Your task to perform on an android device: Open eBay Image 0: 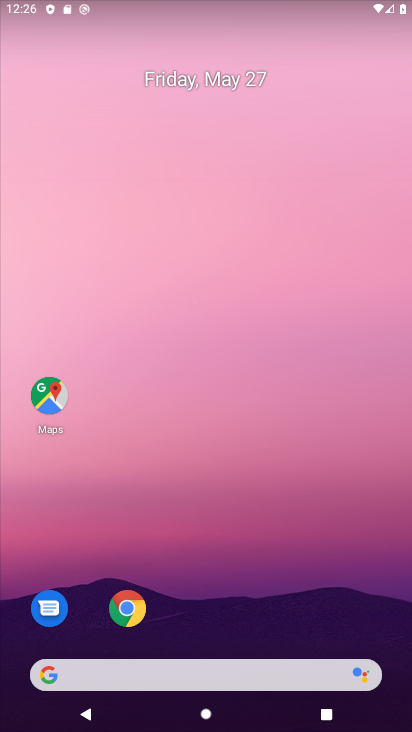
Step 0: click (120, 618)
Your task to perform on an android device: Open eBay Image 1: 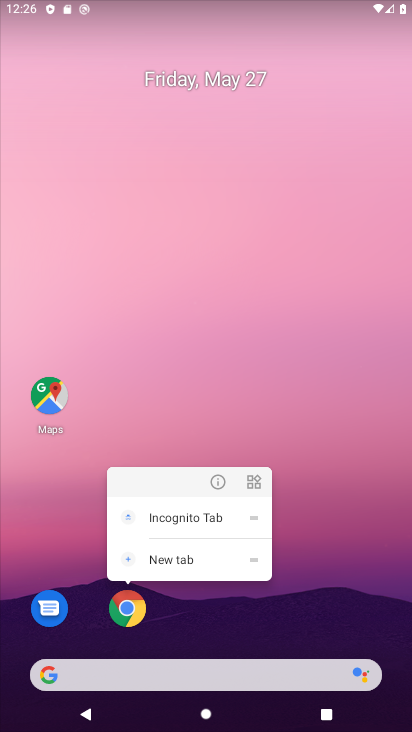
Step 1: click (125, 609)
Your task to perform on an android device: Open eBay Image 2: 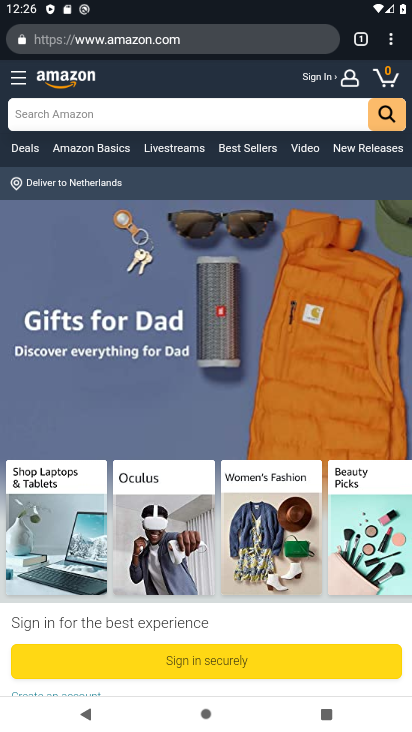
Step 2: click (365, 35)
Your task to perform on an android device: Open eBay Image 3: 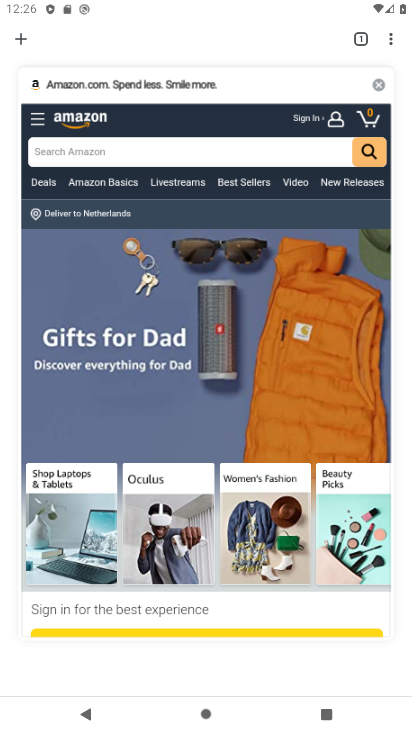
Step 3: click (20, 35)
Your task to perform on an android device: Open eBay Image 4: 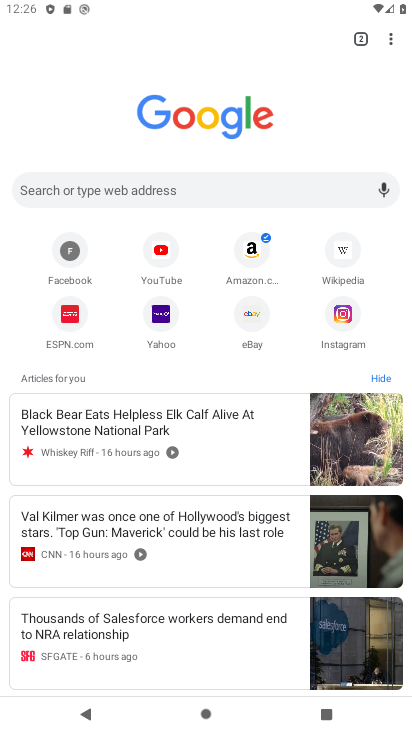
Step 4: click (249, 310)
Your task to perform on an android device: Open eBay Image 5: 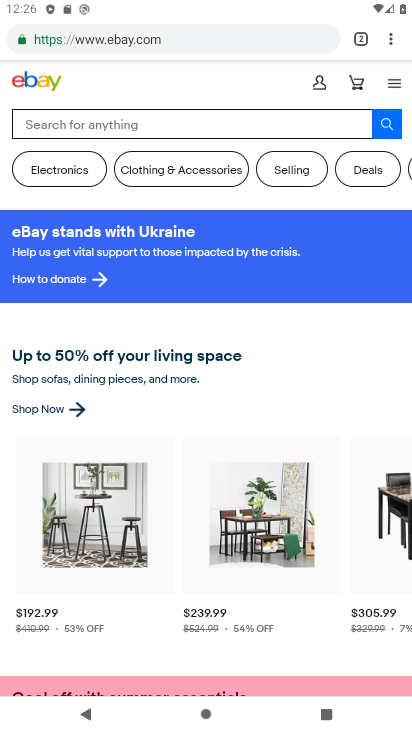
Step 5: task complete